Your task to perform on an android device: turn off data saver in the chrome app Image 0: 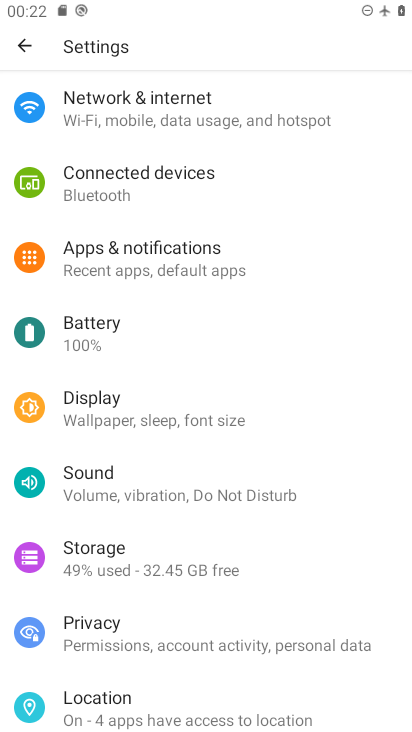
Step 0: press home button
Your task to perform on an android device: turn off data saver in the chrome app Image 1: 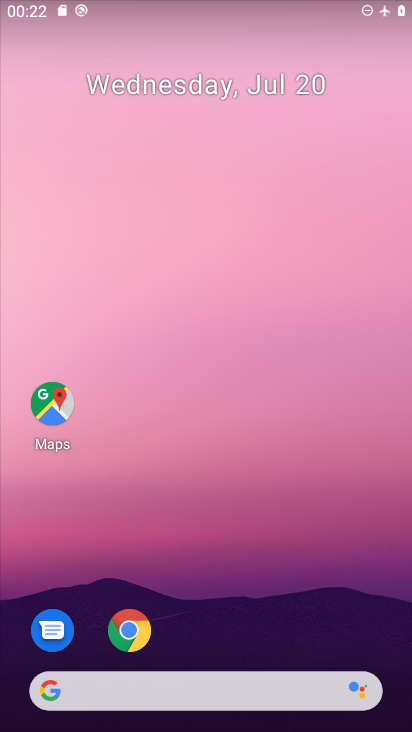
Step 1: click (135, 640)
Your task to perform on an android device: turn off data saver in the chrome app Image 2: 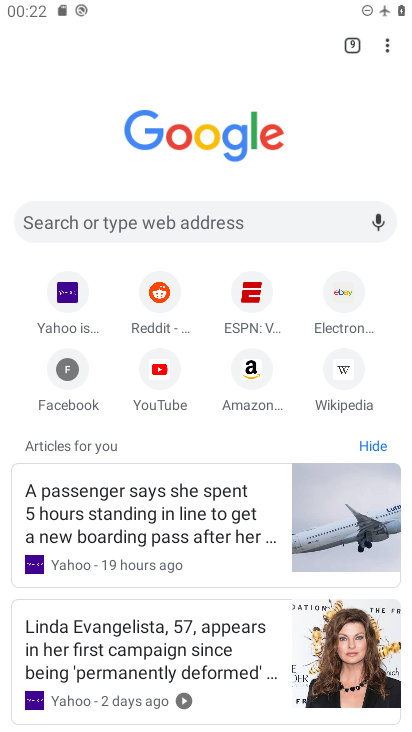
Step 2: click (391, 50)
Your task to perform on an android device: turn off data saver in the chrome app Image 3: 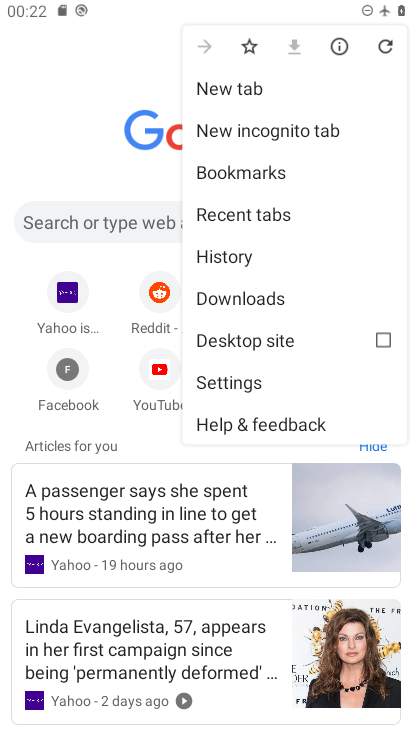
Step 3: click (227, 377)
Your task to perform on an android device: turn off data saver in the chrome app Image 4: 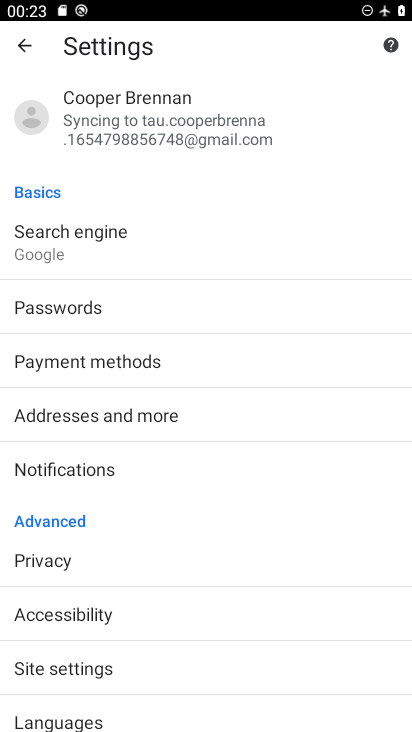
Step 4: drag from (155, 649) to (171, 351)
Your task to perform on an android device: turn off data saver in the chrome app Image 5: 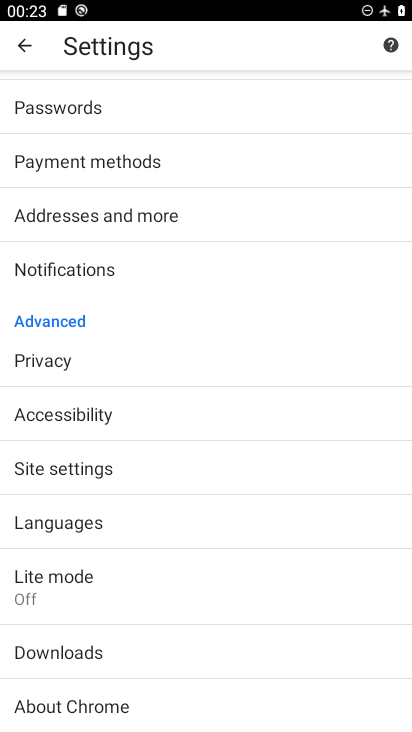
Step 5: click (110, 566)
Your task to perform on an android device: turn off data saver in the chrome app Image 6: 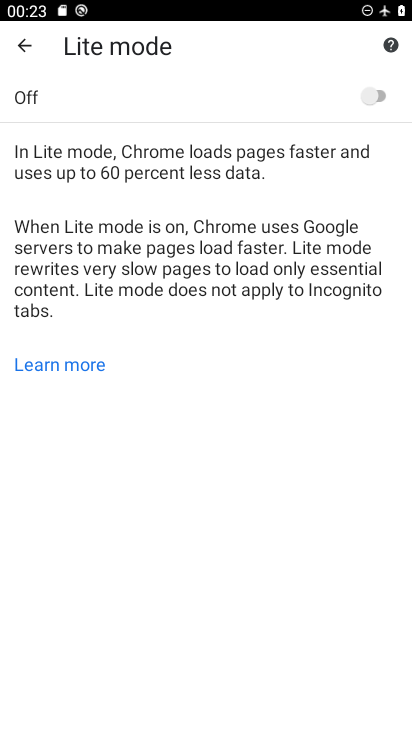
Step 6: task complete